Your task to perform on an android device: turn off translation in the chrome app Image 0: 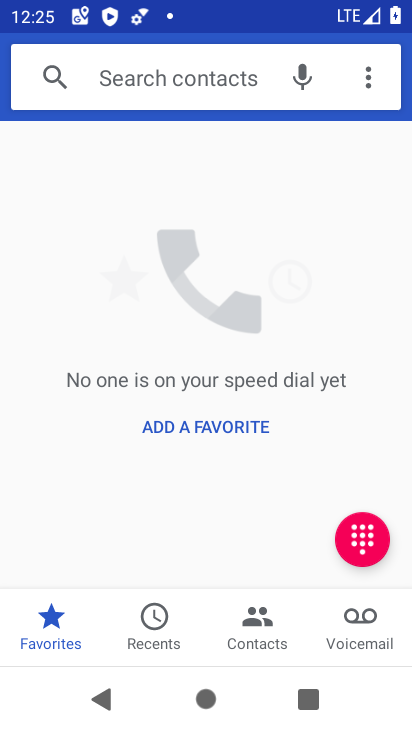
Step 0: press home button
Your task to perform on an android device: turn off translation in the chrome app Image 1: 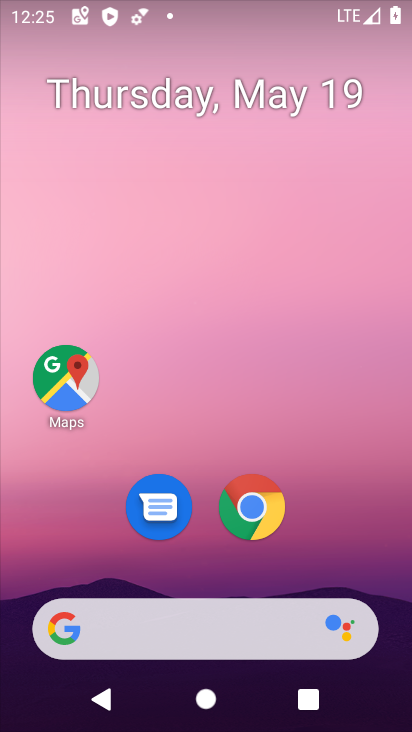
Step 1: click (267, 514)
Your task to perform on an android device: turn off translation in the chrome app Image 2: 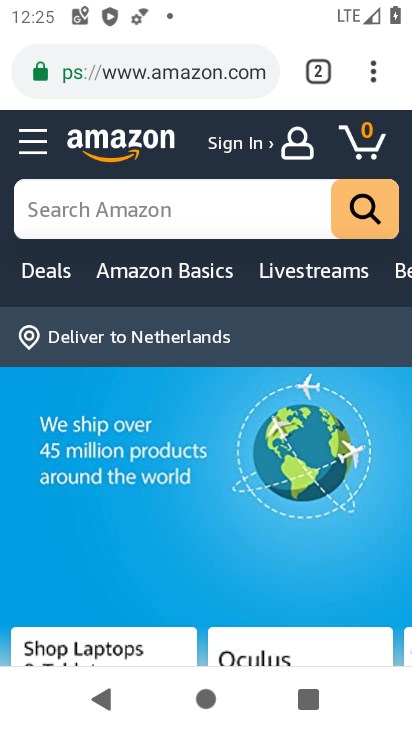
Step 2: click (377, 73)
Your task to perform on an android device: turn off translation in the chrome app Image 3: 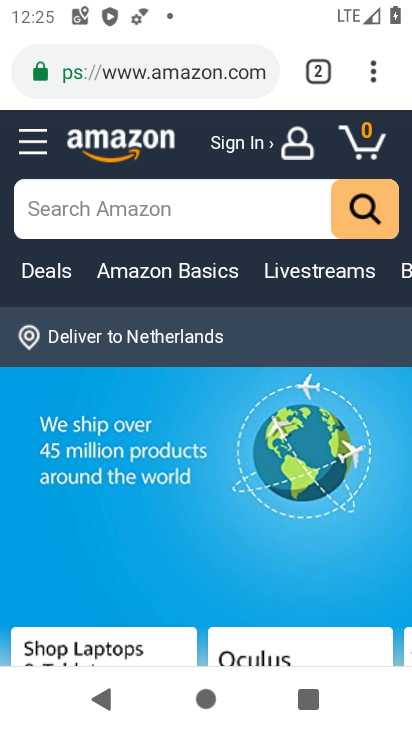
Step 3: click (368, 90)
Your task to perform on an android device: turn off translation in the chrome app Image 4: 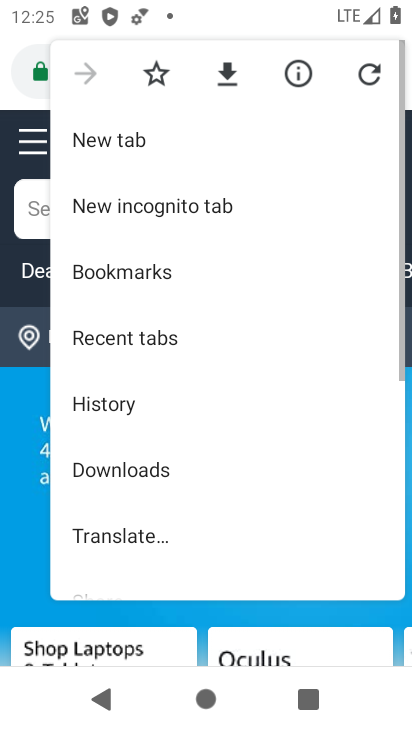
Step 4: drag from (182, 483) to (220, 193)
Your task to perform on an android device: turn off translation in the chrome app Image 5: 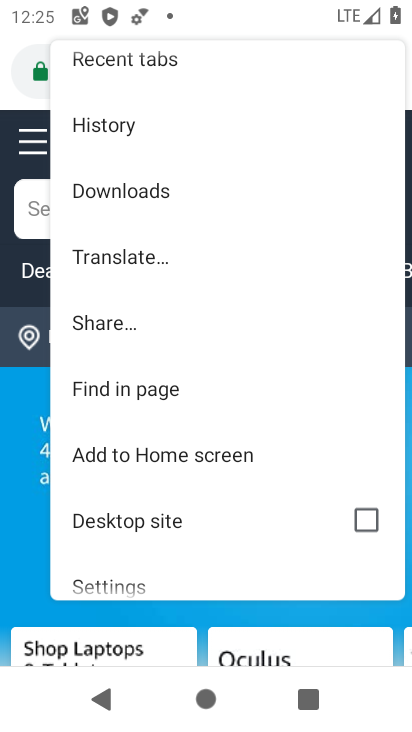
Step 5: drag from (214, 510) to (255, 292)
Your task to perform on an android device: turn off translation in the chrome app Image 6: 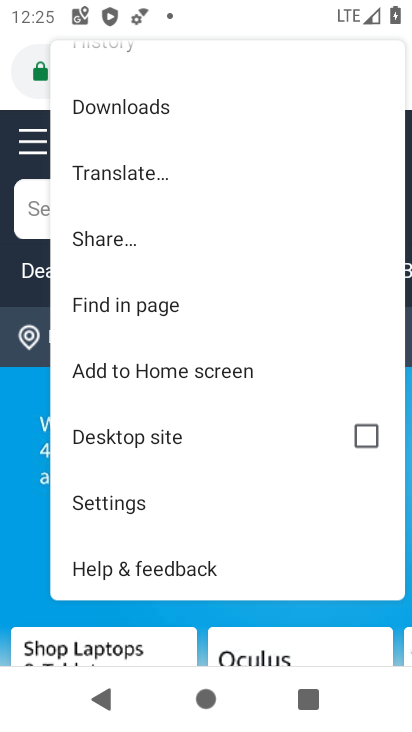
Step 6: click (142, 508)
Your task to perform on an android device: turn off translation in the chrome app Image 7: 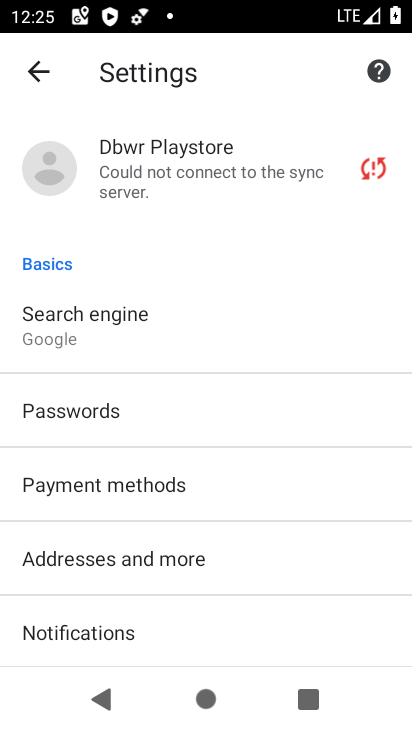
Step 7: drag from (164, 519) to (205, 226)
Your task to perform on an android device: turn off translation in the chrome app Image 8: 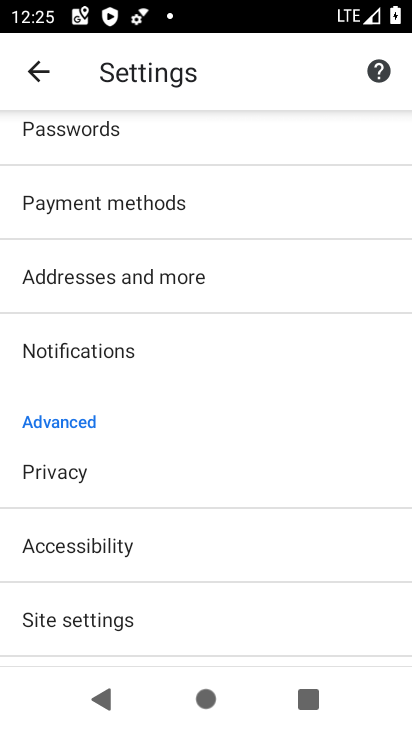
Step 8: drag from (173, 539) to (184, 284)
Your task to perform on an android device: turn off translation in the chrome app Image 9: 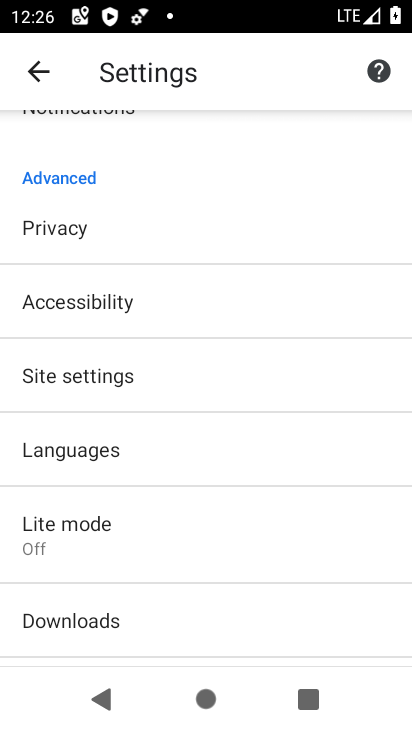
Step 9: click (95, 455)
Your task to perform on an android device: turn off translation in the chrome app Image 10: 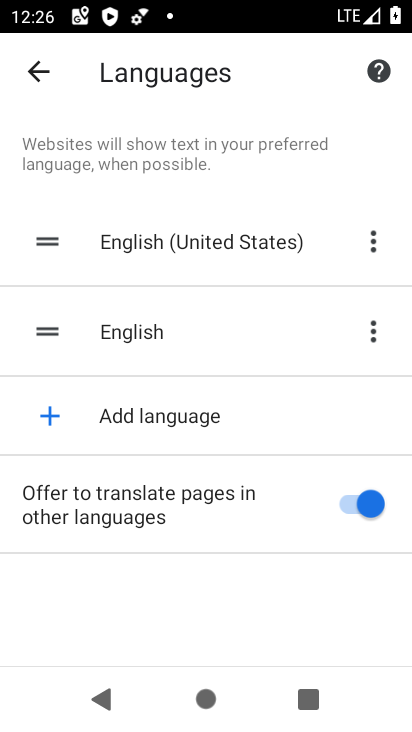
Step 10: click (341, 515)
Your task to perform on an android device: turn off translation in the chrome app Image 11: 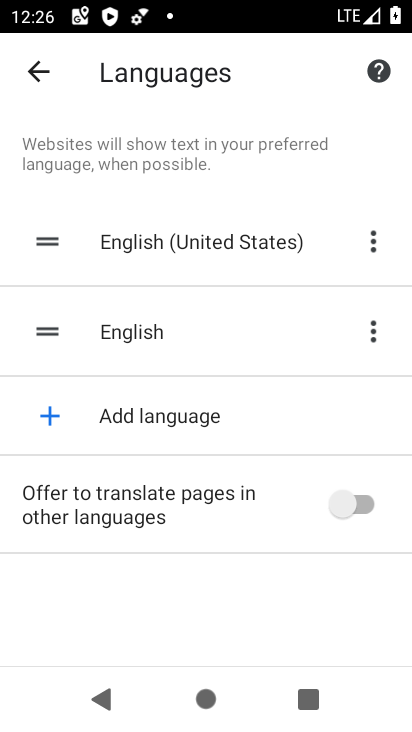
Step 11: task complete